Your task to perform on an android device: toggle pop-ups in chrome Image 0: 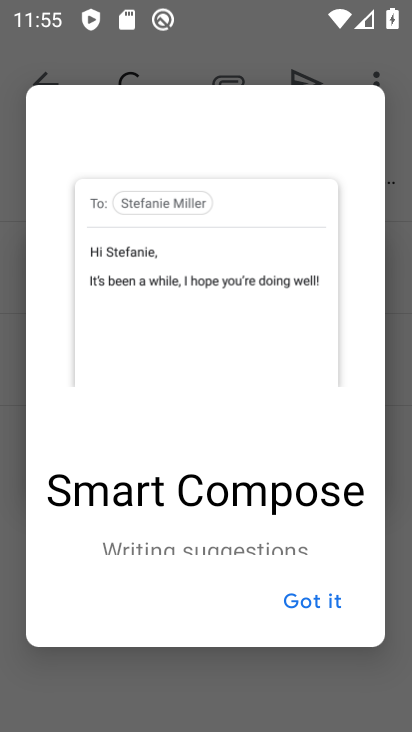
Step 0: press home button
Your task to perform on an android device: toggle pop-ups in chrome Image 1: 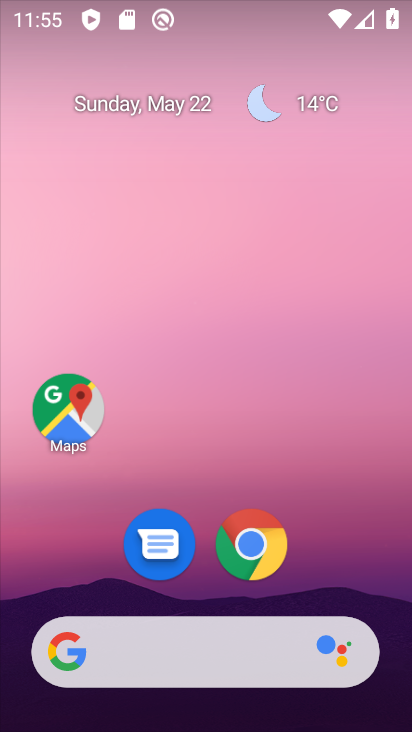
Step 1: click (263, 544)
Your task to perform on an android device: toggle pop-ups in chrome Image 2: 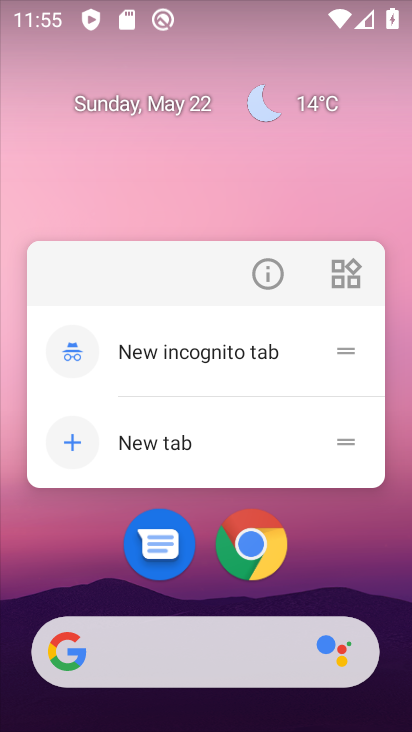
Step 2: click (243, 550)
Your task to perform on an android device: toggle pop-ups in chrome Image 3: 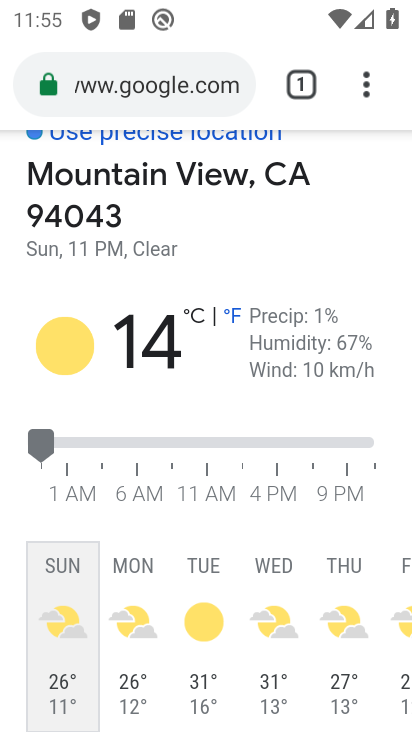
Step 3: drag from (368, 81) to (155, 594)
Your task to perform on an android device: toggle pop-ups in chrome Image 4: 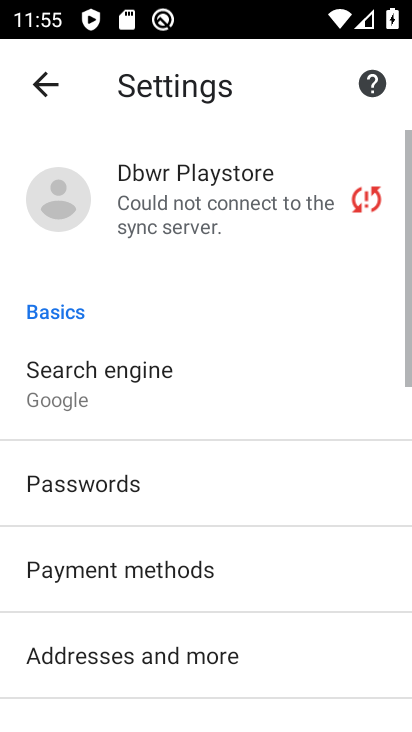
Step 4: drag from (174, 555) to (248, 157)
Your task to perform on an android device: toggle pop-ups in chrome Image 5: 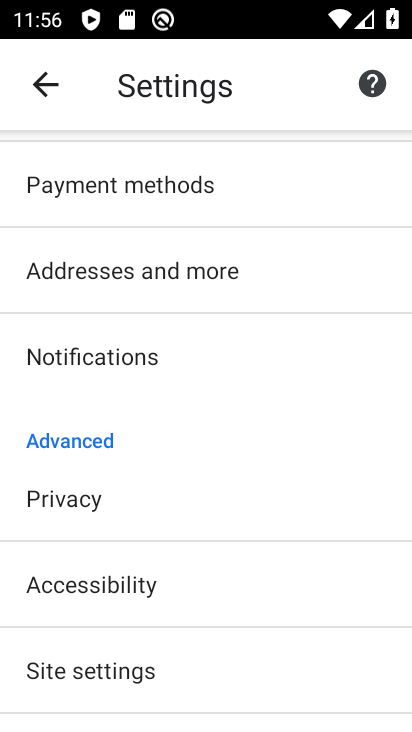
Step 5: drag from (183, 313) to (215, 731)
Your task to perform on an android device: toggle pop-ups in chrome Image 6: 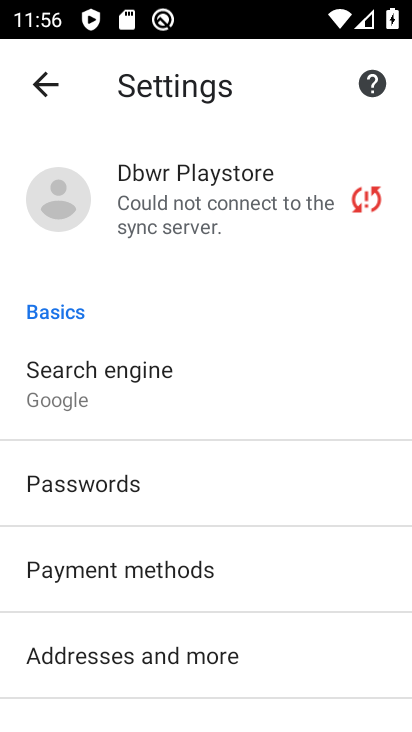
Step 6: drag from (232, 642) to (283, 213)
Your task to perform on an android device: toggle pop-ups in chrome Image 7: 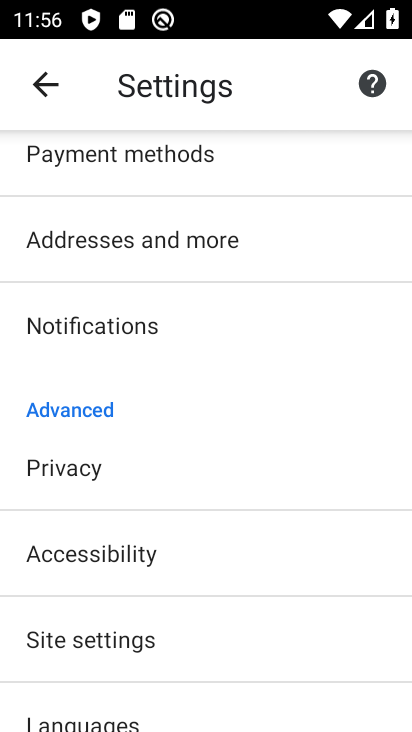
Step 7: press home button
Your task to perform on an android device: toggle pop-ups in chrome Image 8: 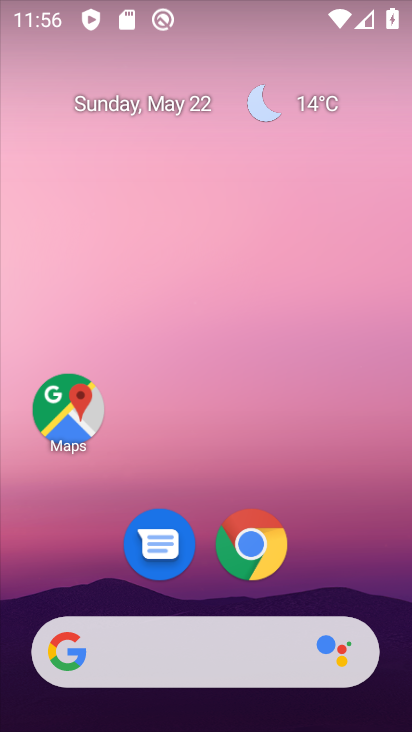
Step 8: click (246, 546)
Your task to perform on an android device: toggle pop-ups in chrome Image 9: 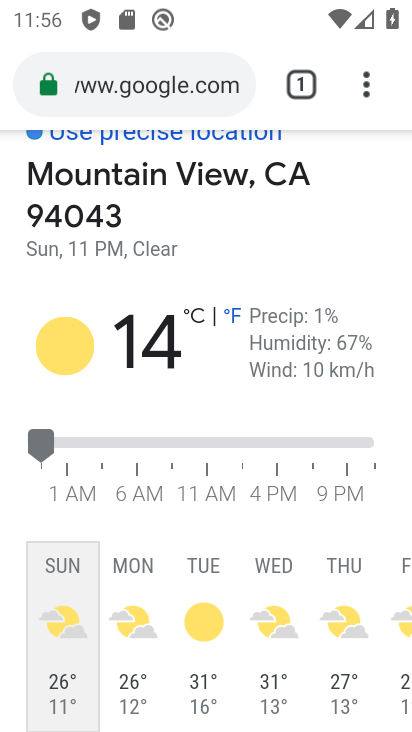
Step 9: drag from (372, 86) to (150, 596)
Your task to perform on an android device: toggle pop-ups in chrome Image 10: 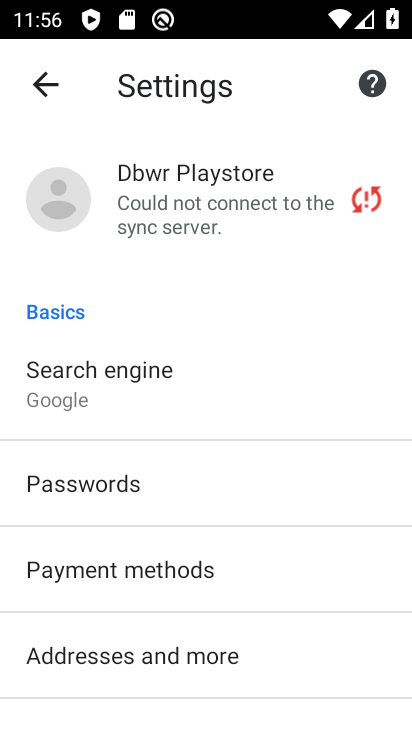
Step 10: drag from (165, 531) to (235, 137)
Your task to perform on an android device: toggle pop-ups in chrome Image 11: 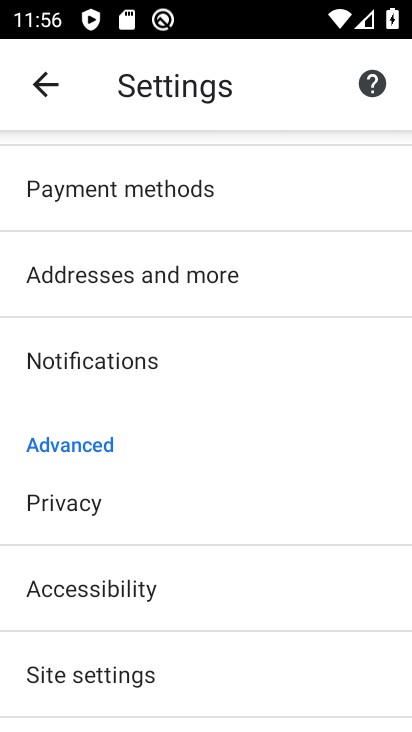
Step 11: click (118, 661)
Your task to perform on an android device: toggle pop-ups in chrome Image 12: 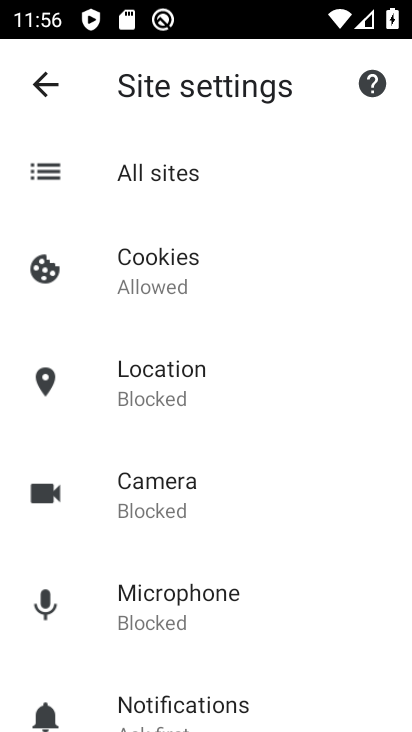
Step 12: drag from (179, 715) to (301, 217)
Your task to perform on an android device: toggle pop-ups in chrome Image 13: 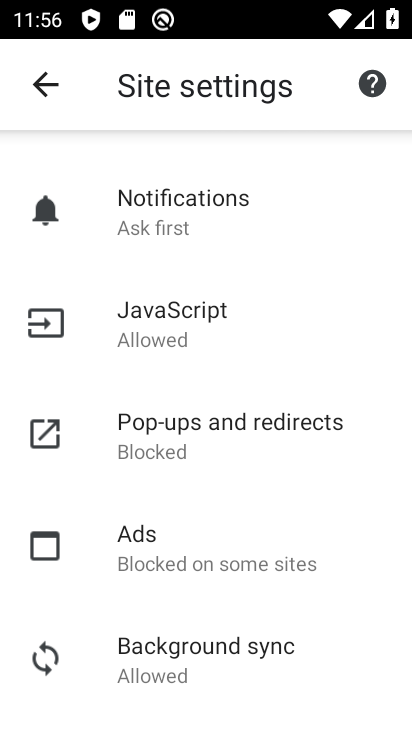
Step 13: click (171, 442)
Your task to perform on an android device: toggle pop-ups in chrome Image 14: 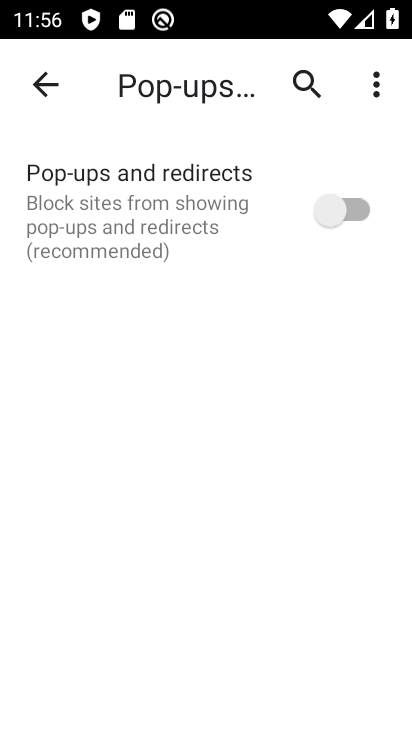
Step 14: click (351, 198)
Your task to perform on an android device: toggle pop-ups in chrome Image 15: 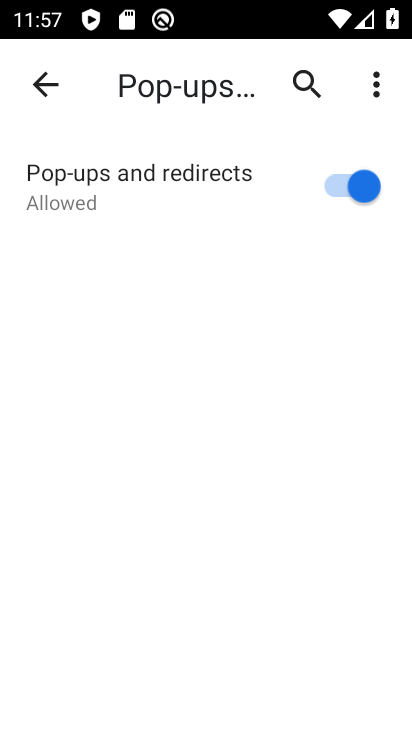
Step 15: task complete